Your task to perform on an android device: stop showing notifications on the lock screen Image 0: 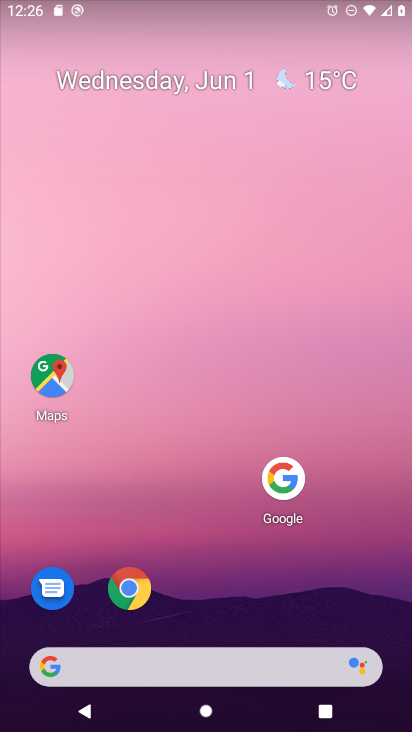
Step 0: press home button
Your task to perform on an android device: stop showing notifications on the lock screen Image 1: 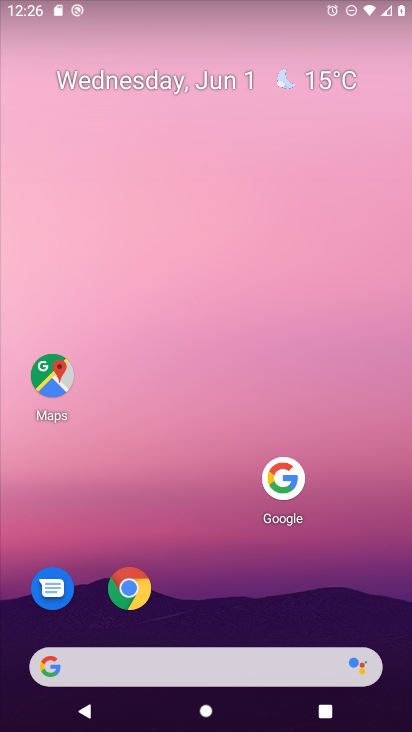
Step 1: drag from (170, 664) to (203, 189)
Your task to perform on an android device: stop showing notifications on the lock screen Image 2: 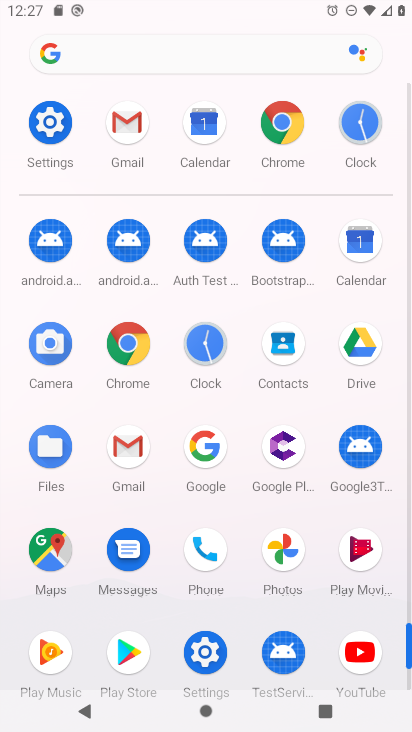
Step 2: click (51, 117)
Your task to perform on an android device: stop showing notifications on the lock screen Image 3: 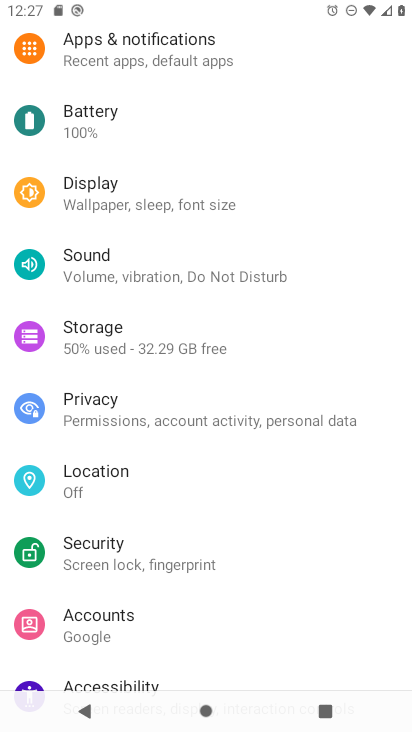
Step 3: click (163, 59)
Your task to perform on an android device: stop showing notifications on the lock screen Image 4: 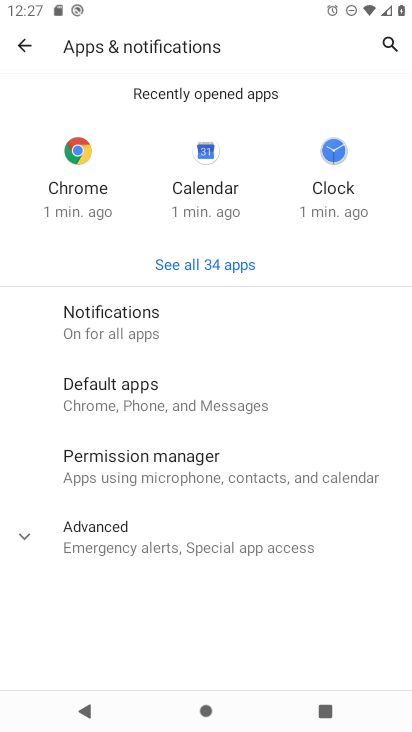
Step 4: click (158, 324)
Your task to perform on an android device: stop showing notifications on the lock screen Image 5: 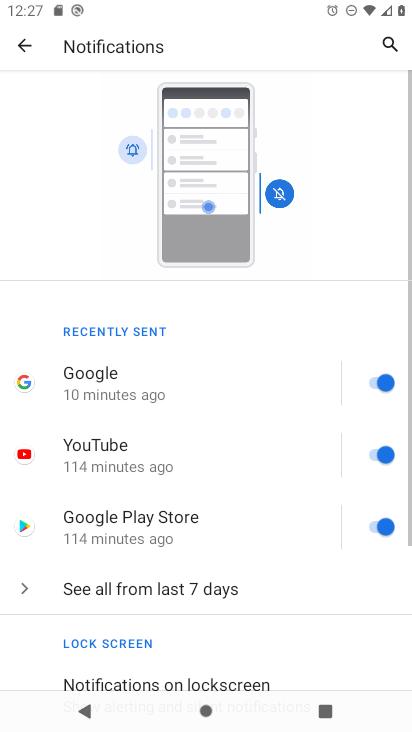
Step 5: drag from (140, 565) to (221, 163)
Your task to perform on an android device: stop showing notifications on the lock screen Image 6: 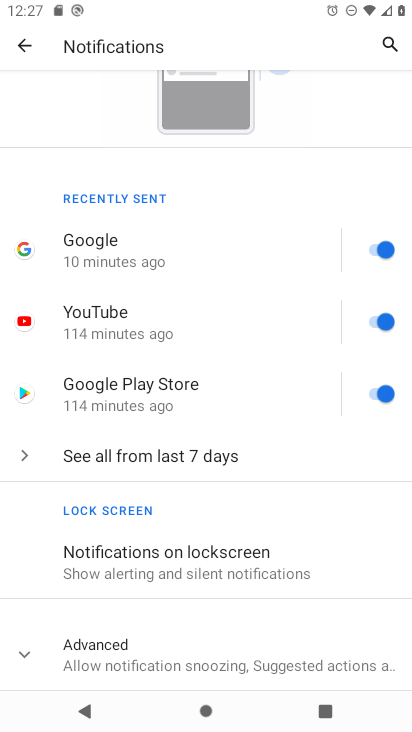
Step 6: click (137, 637)
Your task to perform on an android device: stop showing notifications on the lock screen Image 7: 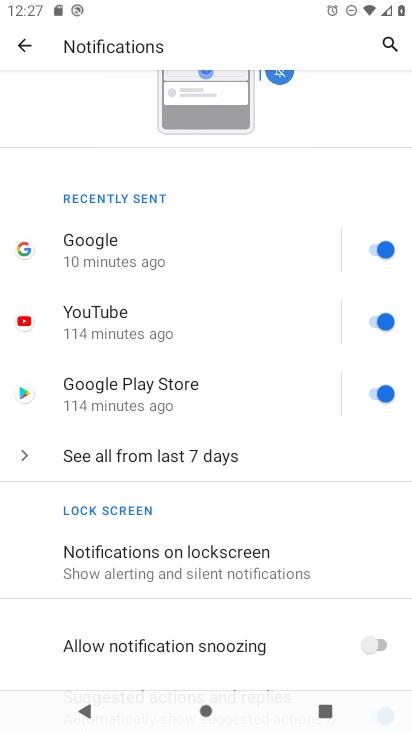
Step 7: click (181, 554)
Your task to perform on an android device: stop showing notifications on the lock screen Image 8: 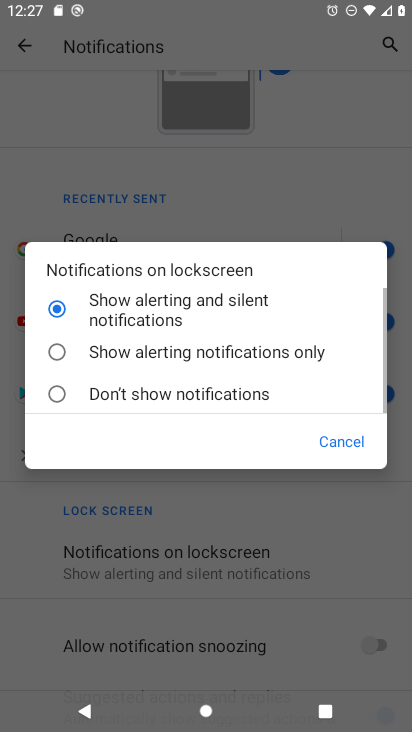
Step 8: click (50, 396)
Your task to perform on an android device: stop showing notifications on the lock screen Image 9: 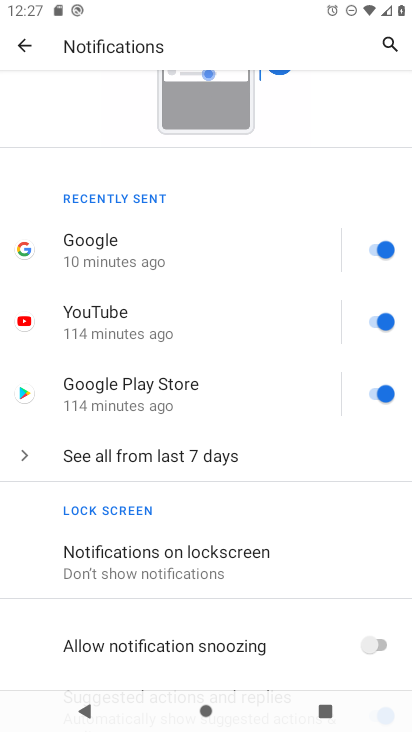
Step 9: task complete